Your task to perform on an android device: Open Google Maps Image 0: 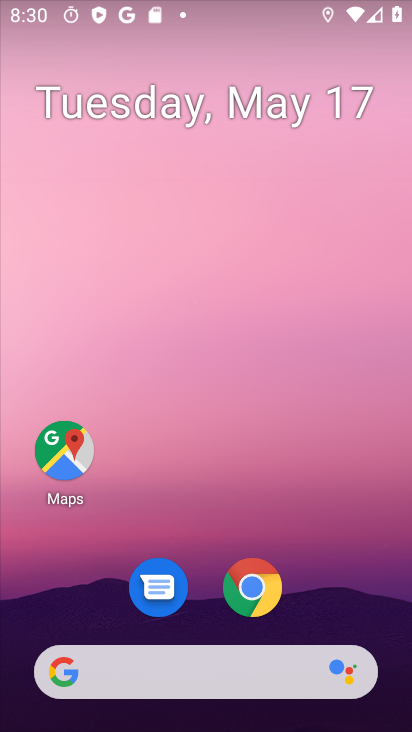
Step 0: drag from (271, 680) to (162, 197)
Your task to perform on an android device: Open Google Maps Image 1: 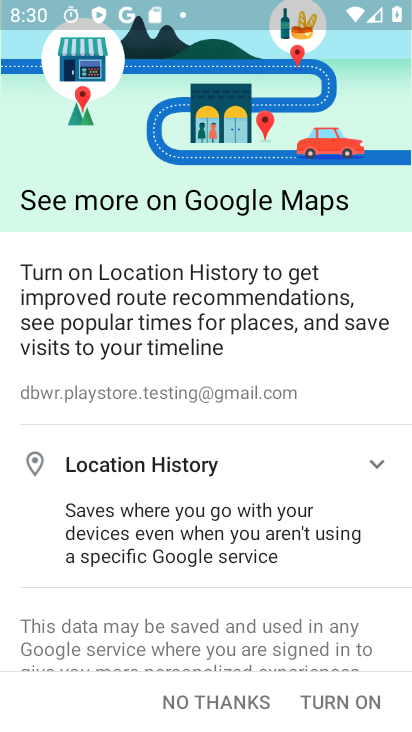
Step 1: click (206, 698)
Your task to perform on an android device: Open Google Maps Image 2: 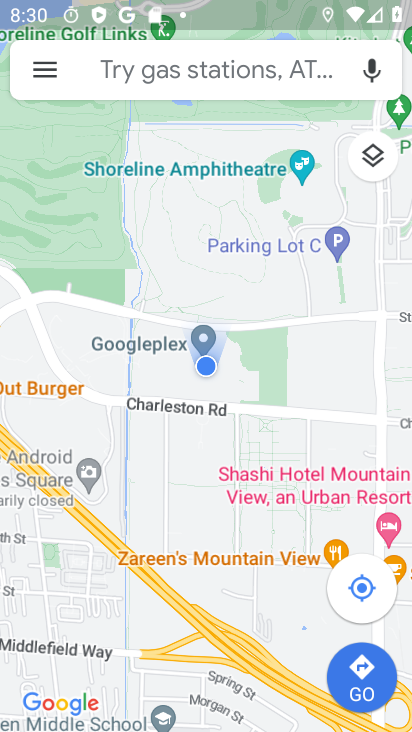
Step 2: task complete